Your task to perform on an android device: Open settings on Google Maps Image 0: 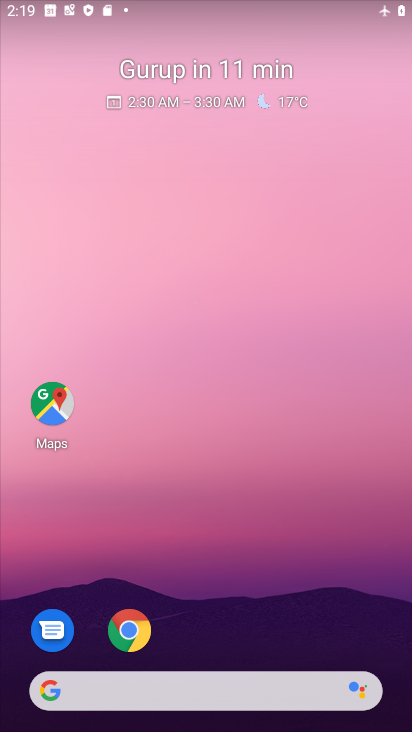
Step 0: click (50, 399)
Your task to perform on an android device: Open settings on Google Maps Image 1: 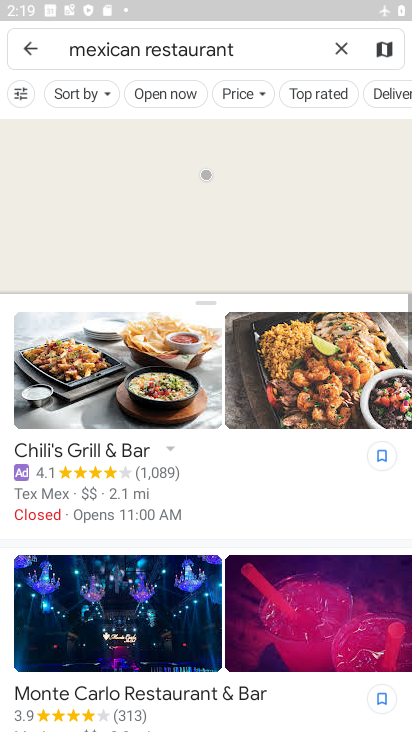
Step 1: click (37, 49)
Your task to perform on an android device: Open settings on Google Maps Image 2: 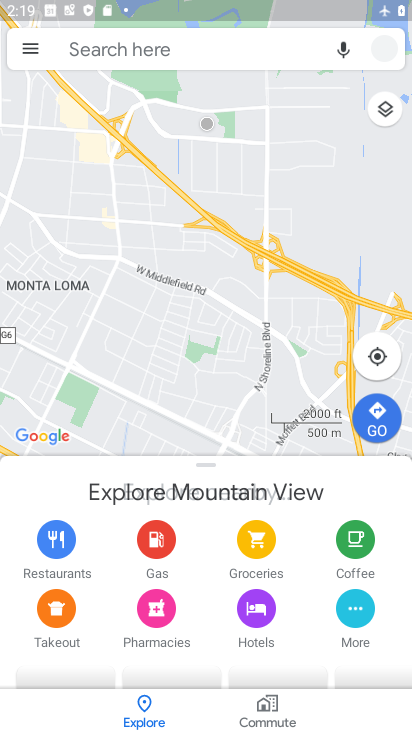
Step 2: click (32, 43)
Your task to perform on an android device: Open settings on Google Maps Image 3: 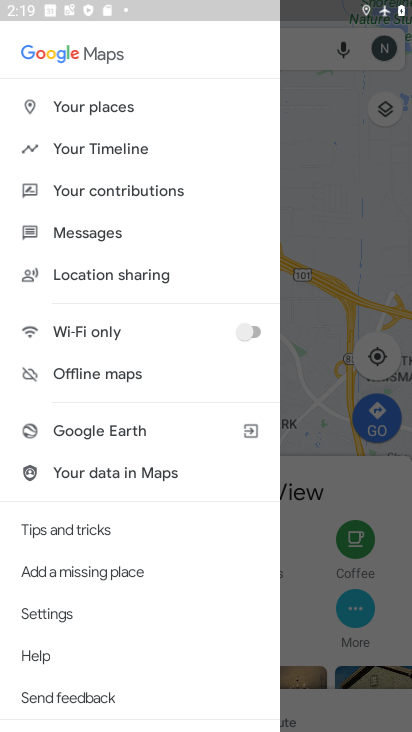
Step 3: click (55, 612)
Your task to perform on an android device: Open settings on Google Maps Image 4: 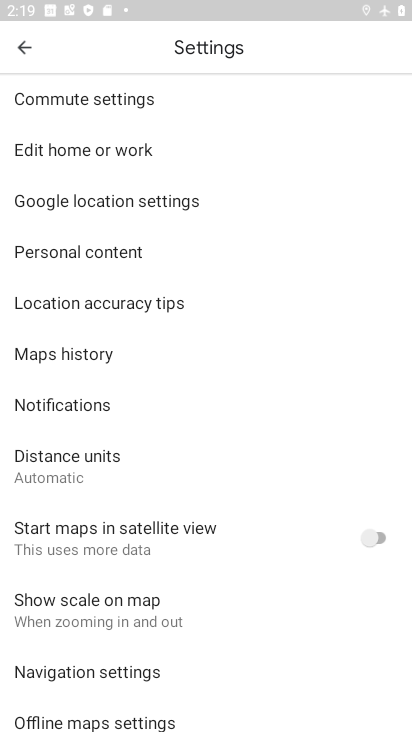
Step 4: task complete